Your task to perform on an android device: open wifi settings Image 0: 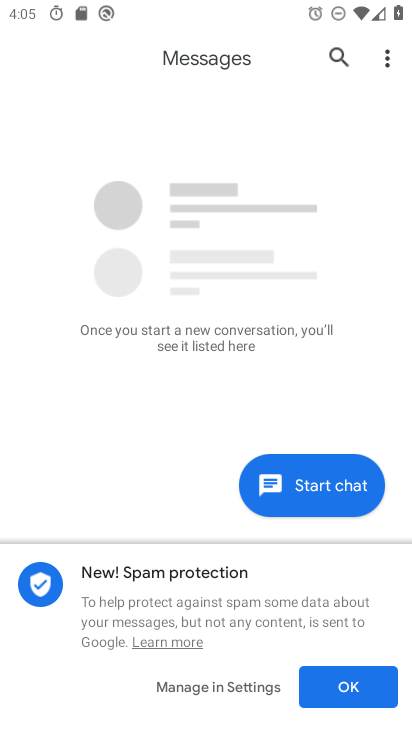
Step 0: press home button
Your task to perform on an android device: open wifi settings Image 1: 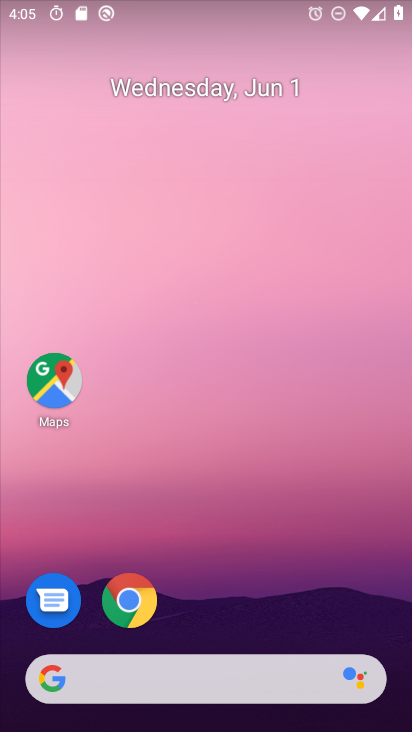
Step 1: drag from (246, 616) to (246, 80)
Your task to perform on an android device: open wifi settings Image 2: 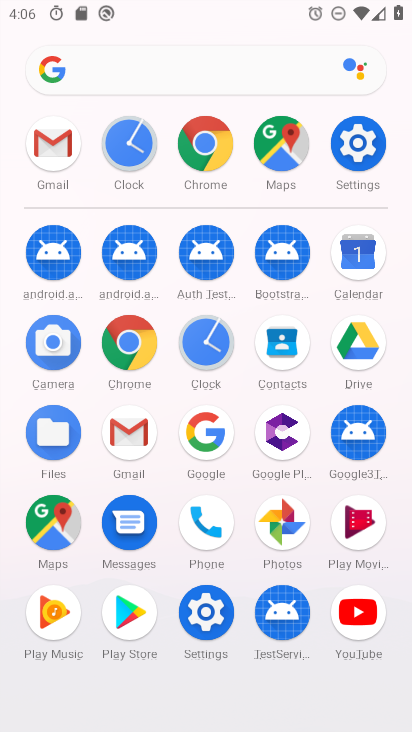
Step 2: click (361, 139)
Your task to perform on an android device: open wifi settings Image 3: 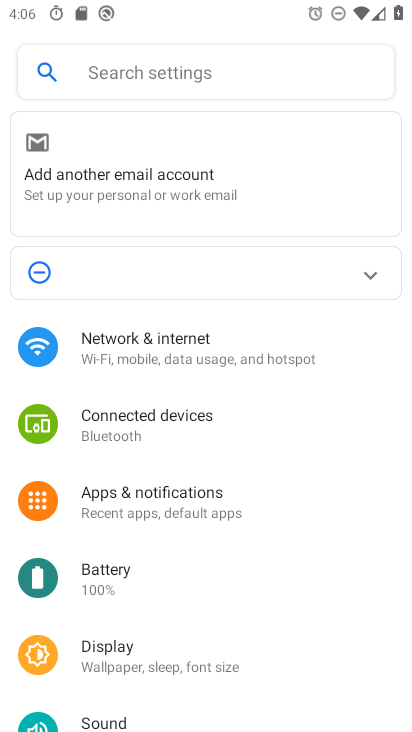
Step 3: click (189, 362)
Your task to perform on an android device: open wifi settings Image 4: 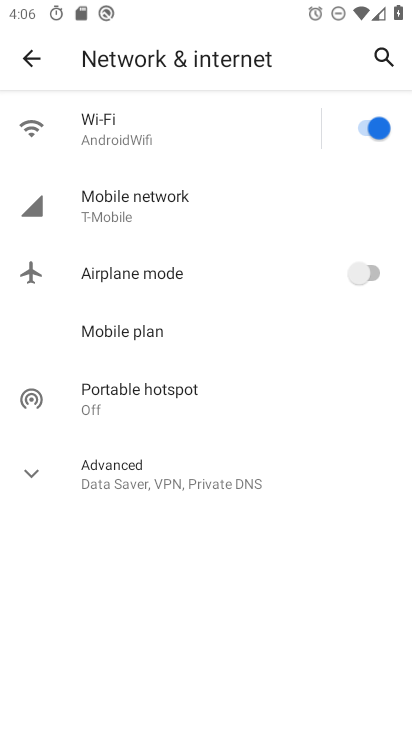
Step 4: click (146, 140)
Your task to perform on an android device: open wifi settings Image 5: 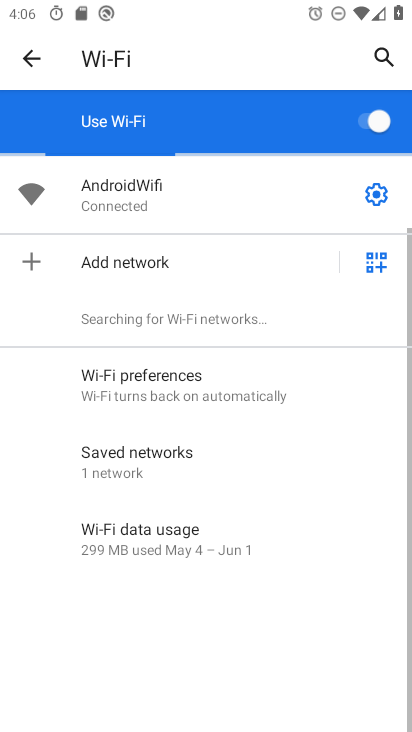
Step 5: task complete